Your task to perform on an android device: Search for the new Air Jordan 13 on Nike.com Image 0: 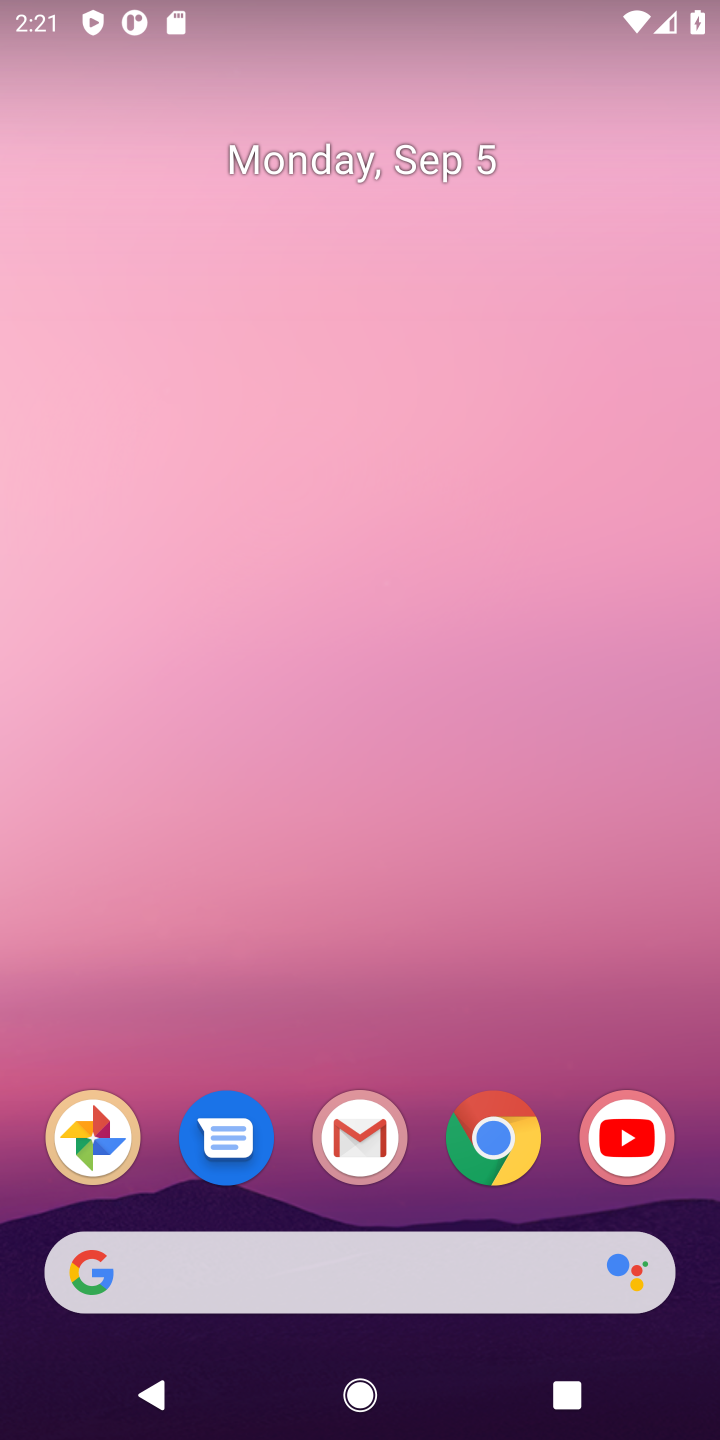
Step 0: click (502, 1148)
Your task to perform on an android device: Search for the new Air Jordan 13 on Nike.com Image 1: 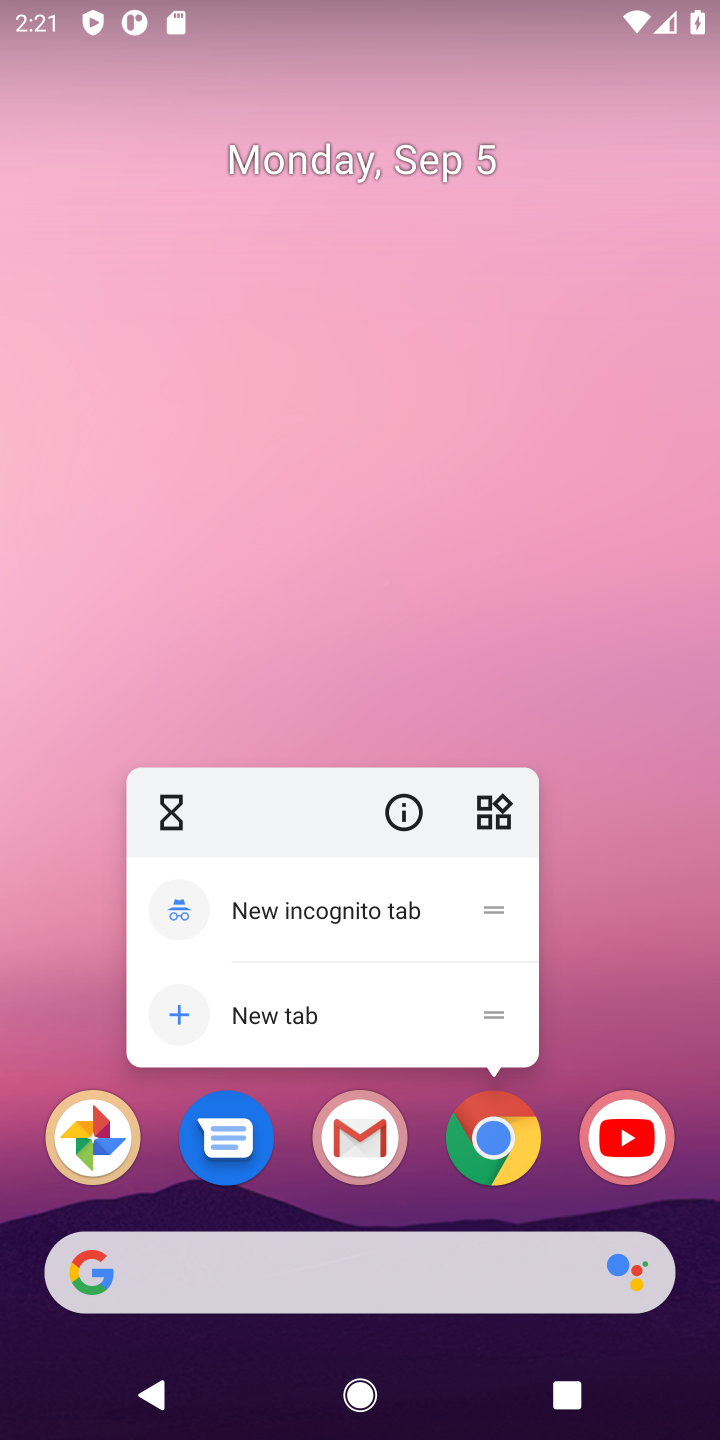
Step 1: click (486, 1118)
Your task to perform on an android device: Search for the new Air Jordan 13 on Nike.com Image 2: 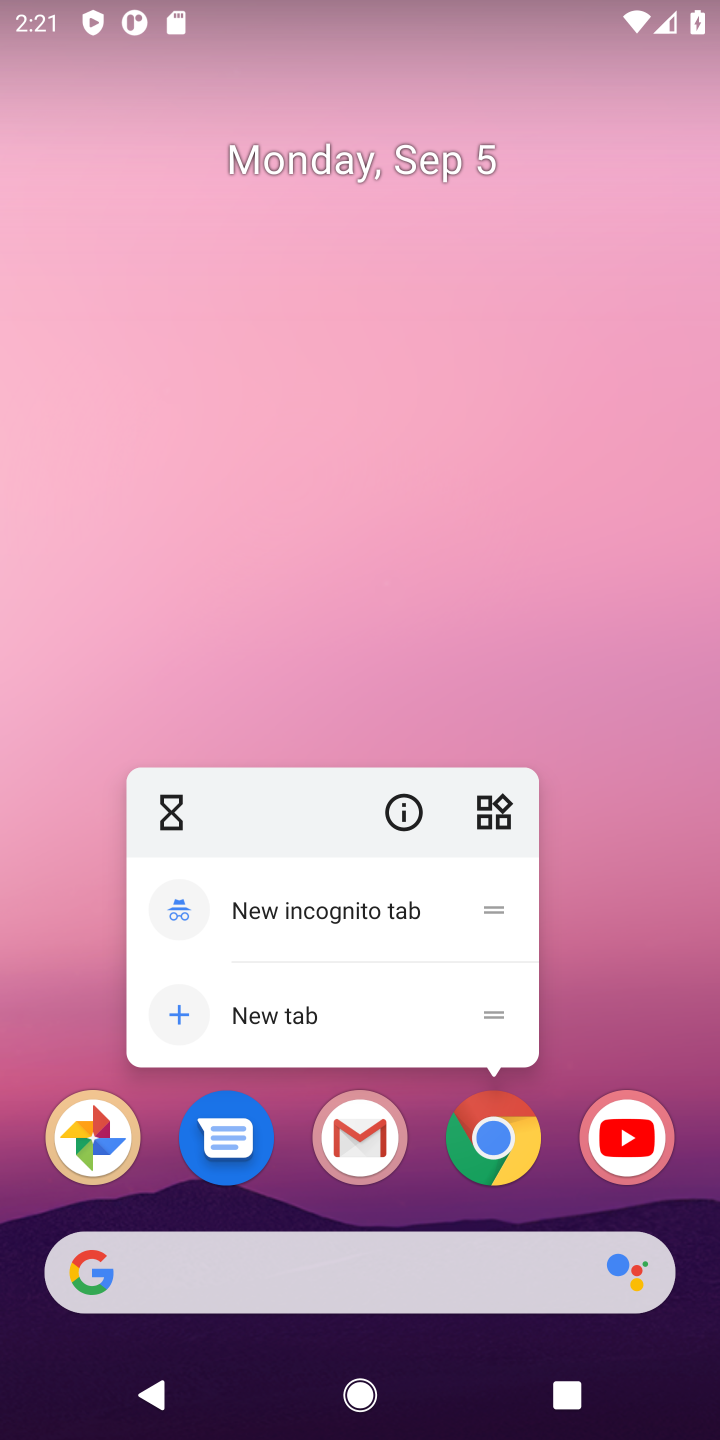
Step 2: click (497, 1157)
Your task to perform on an android device: Search for the new Air Jordan 13 on Nike.com Image 3: 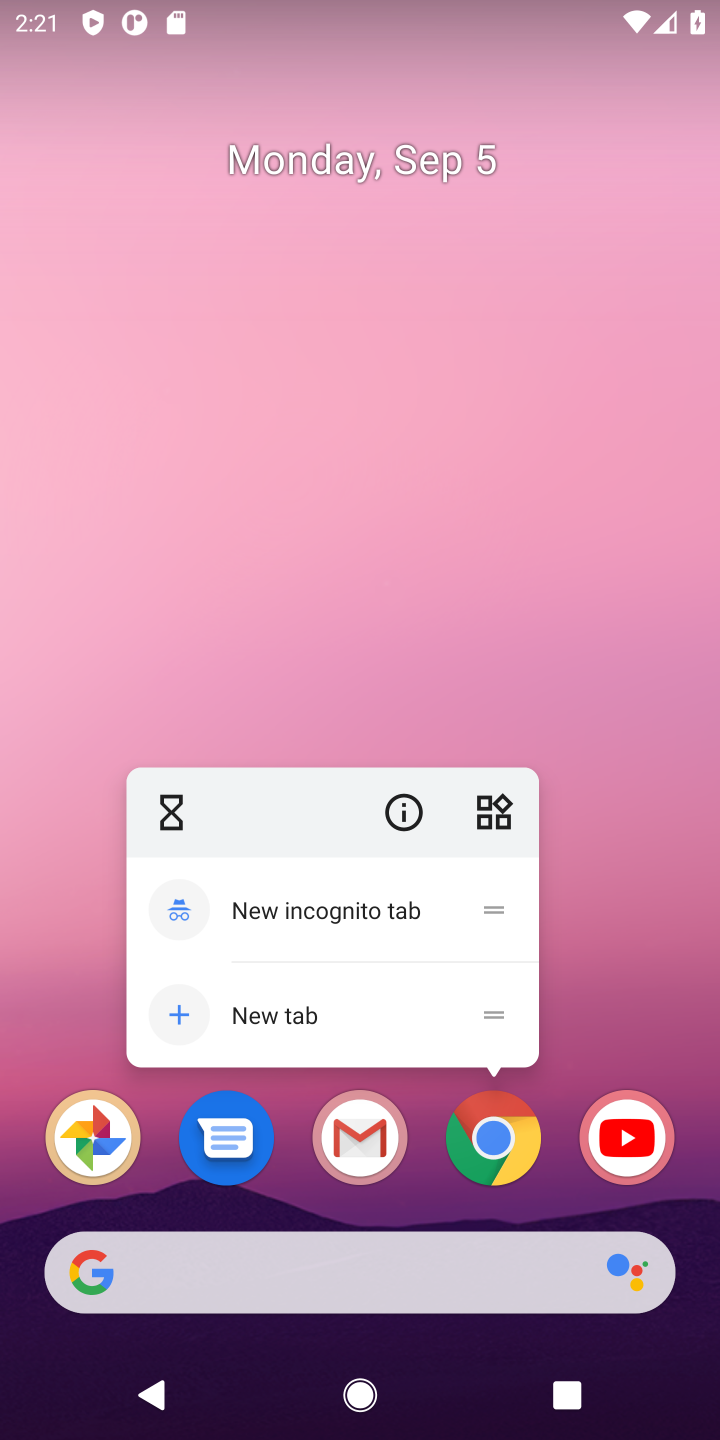
Step 3: click (499, 1148)
Your task to perform on an android device: Search for the new Air Jordan 13 on Nike.com Image 4: 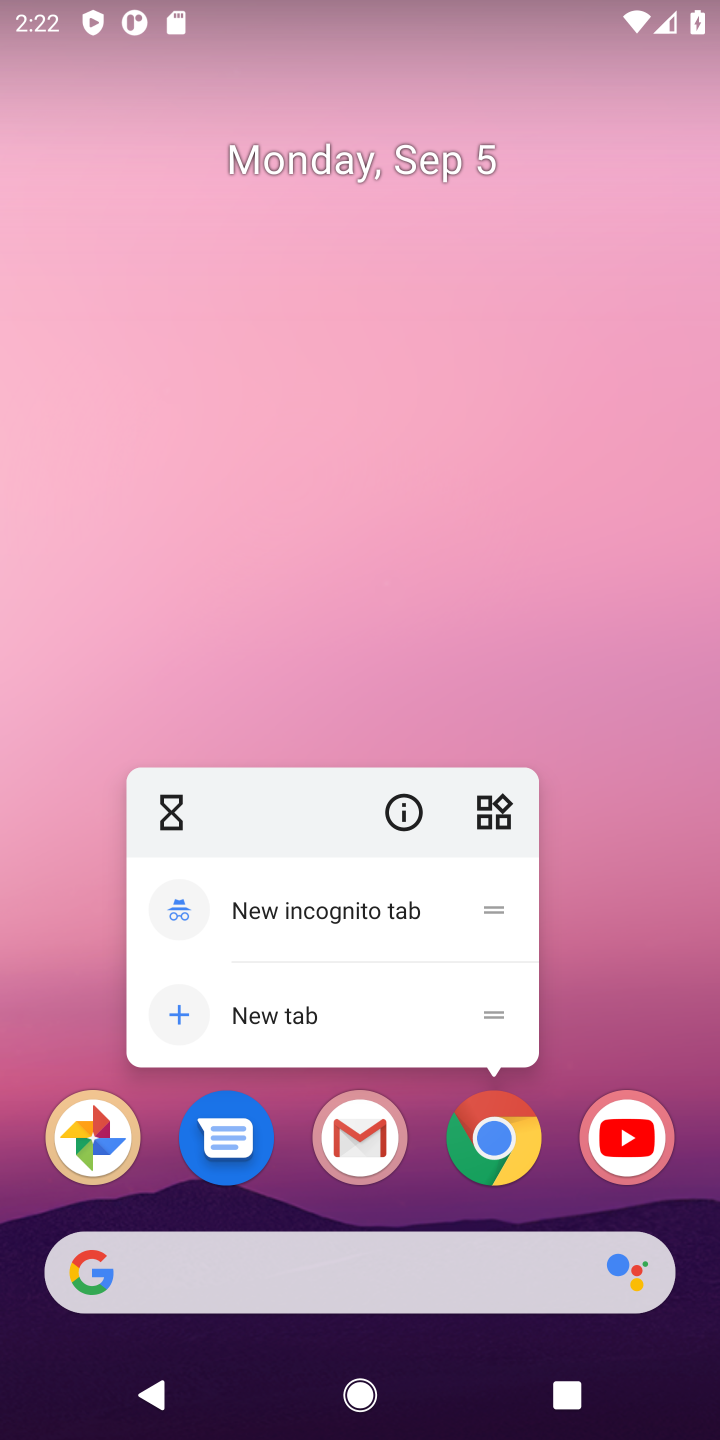
Step 4: click (505, 1148)
Your task to perform on an android device: Search for the new Air Jordan 13 on Nike.com Image 5: 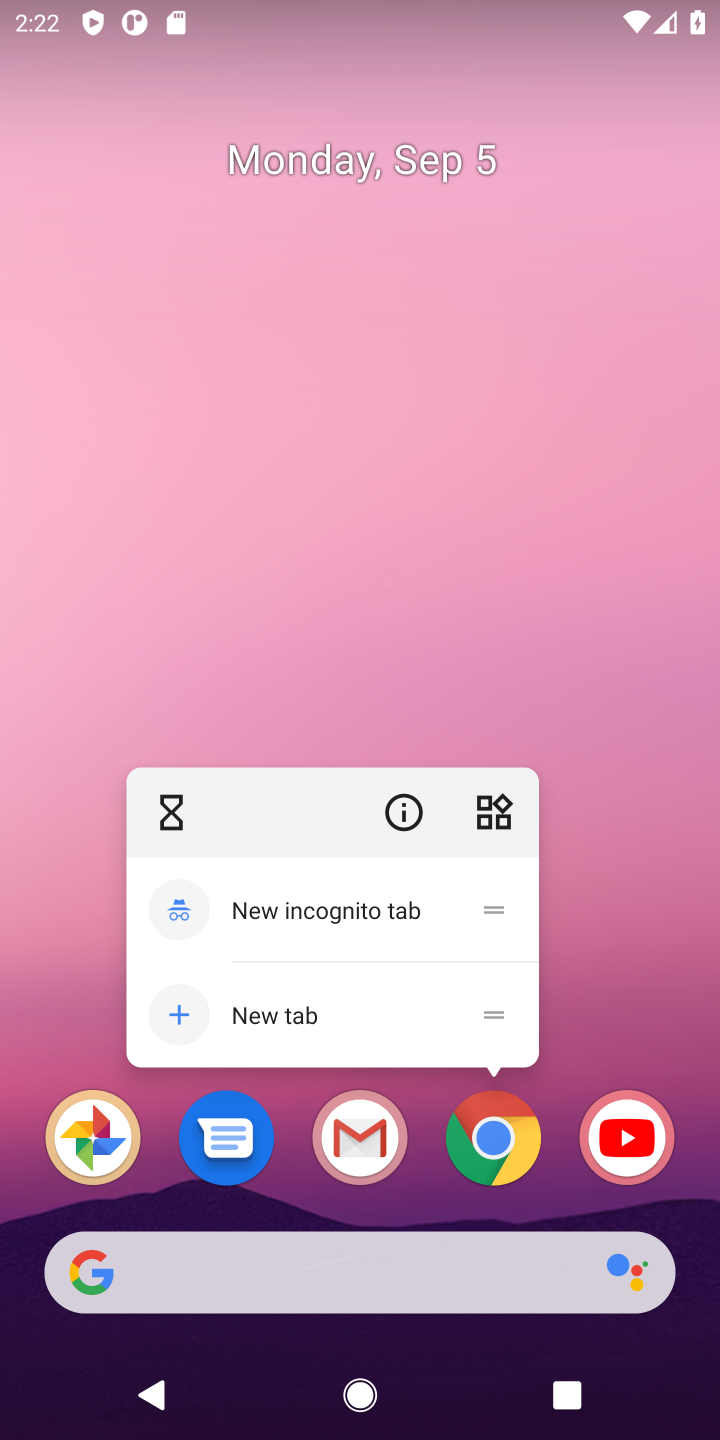
Step 5: click (506, 1146)
Your task to perform on an android device: Search for the new Air Jordan 13 on Nike.com Image 6: 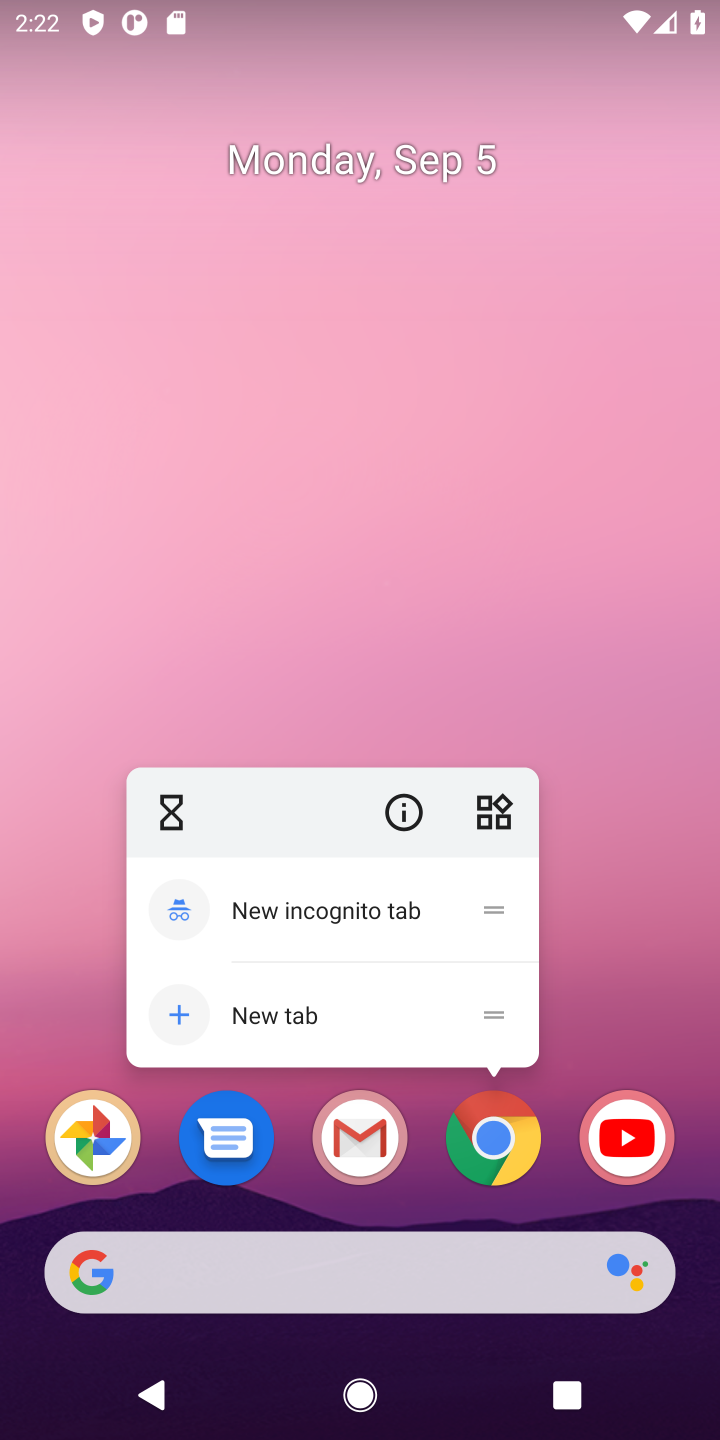
Step 6: click (492, 1147)
Your task to perform on an android device: Search for the new Air Jordan 13 on Nike.com Image 7: 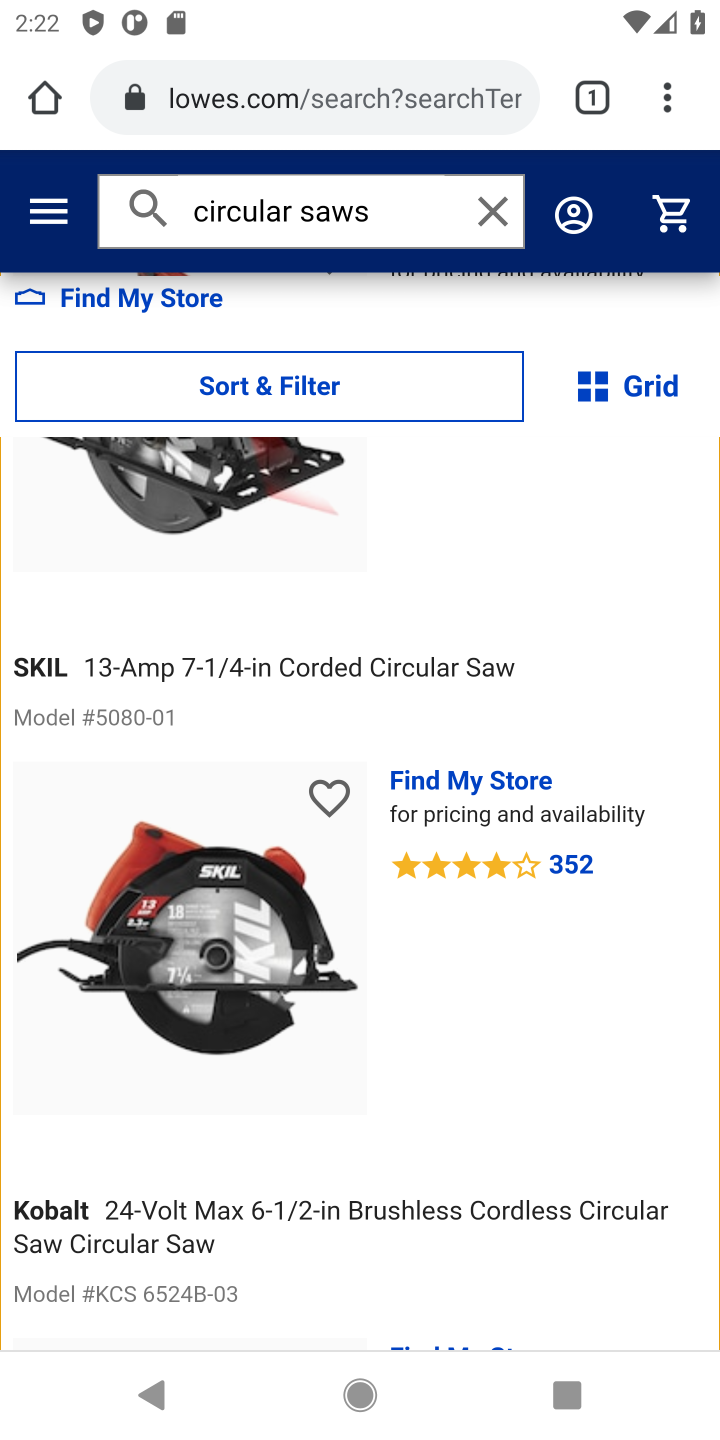
Step 7: click (339, 83)
Your task to perform on an android device: Search for the new Air Jordan 13 on Nike.com Image 8: 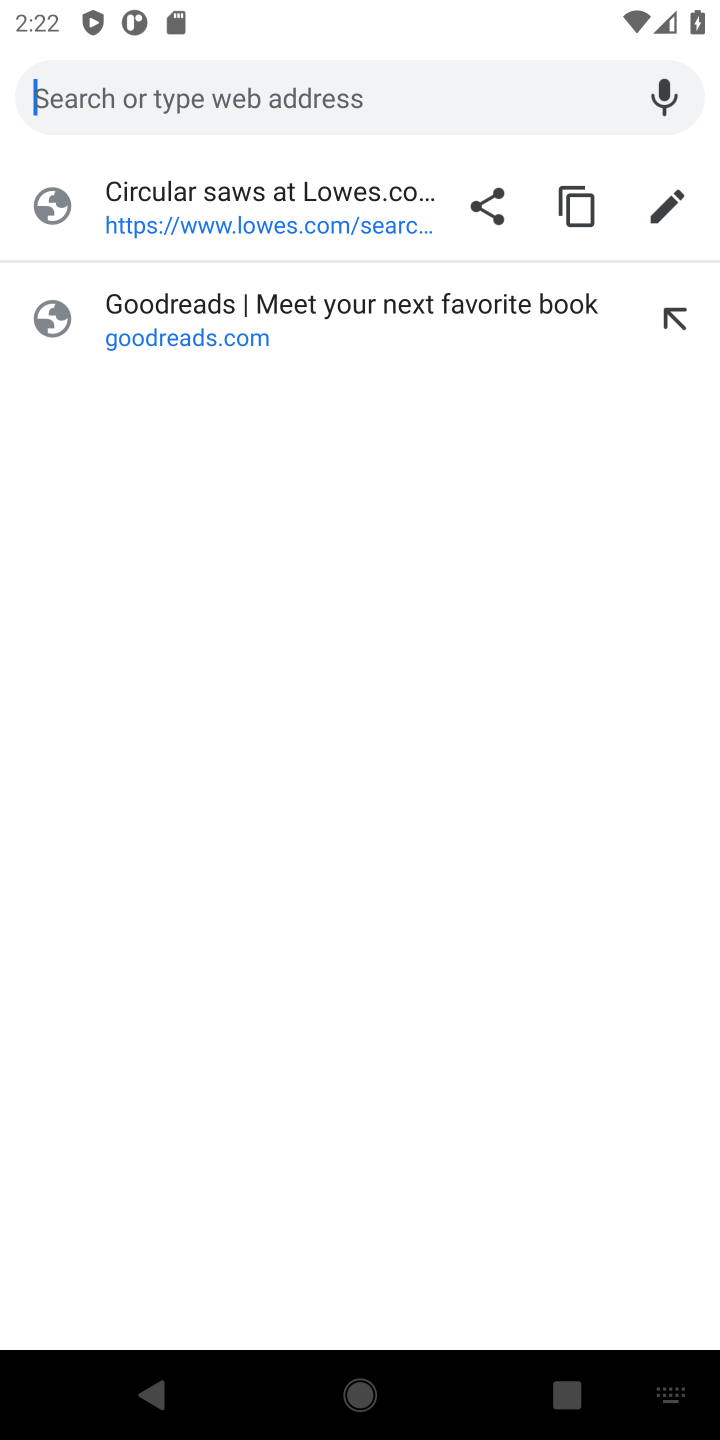
Step 8: type "nike.com"
Your task to perform on an android device: Search for the new Air Jordan 13 on Nike.com Image 9: 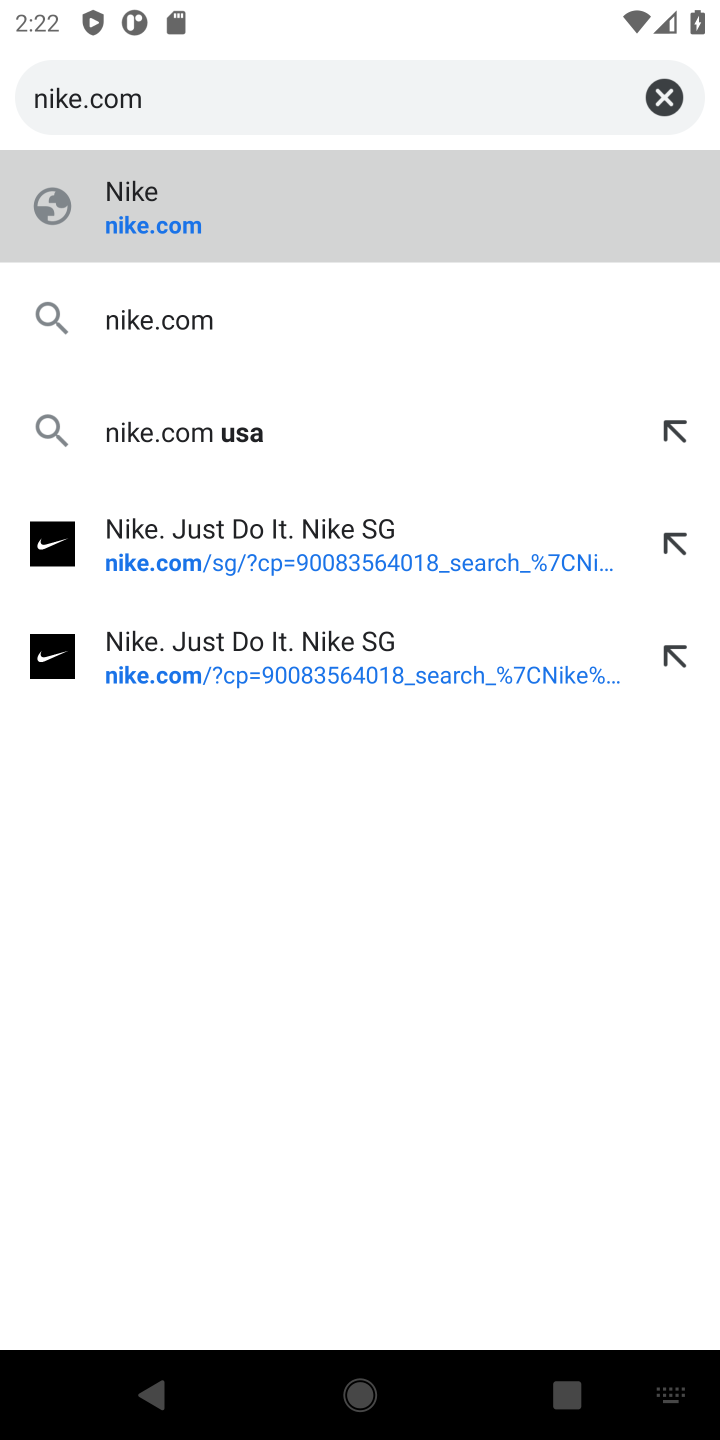
Step 9: type ""
Your task to perform on an android device: Search for the new Air Jordan 13 on Nike.com Image 10: 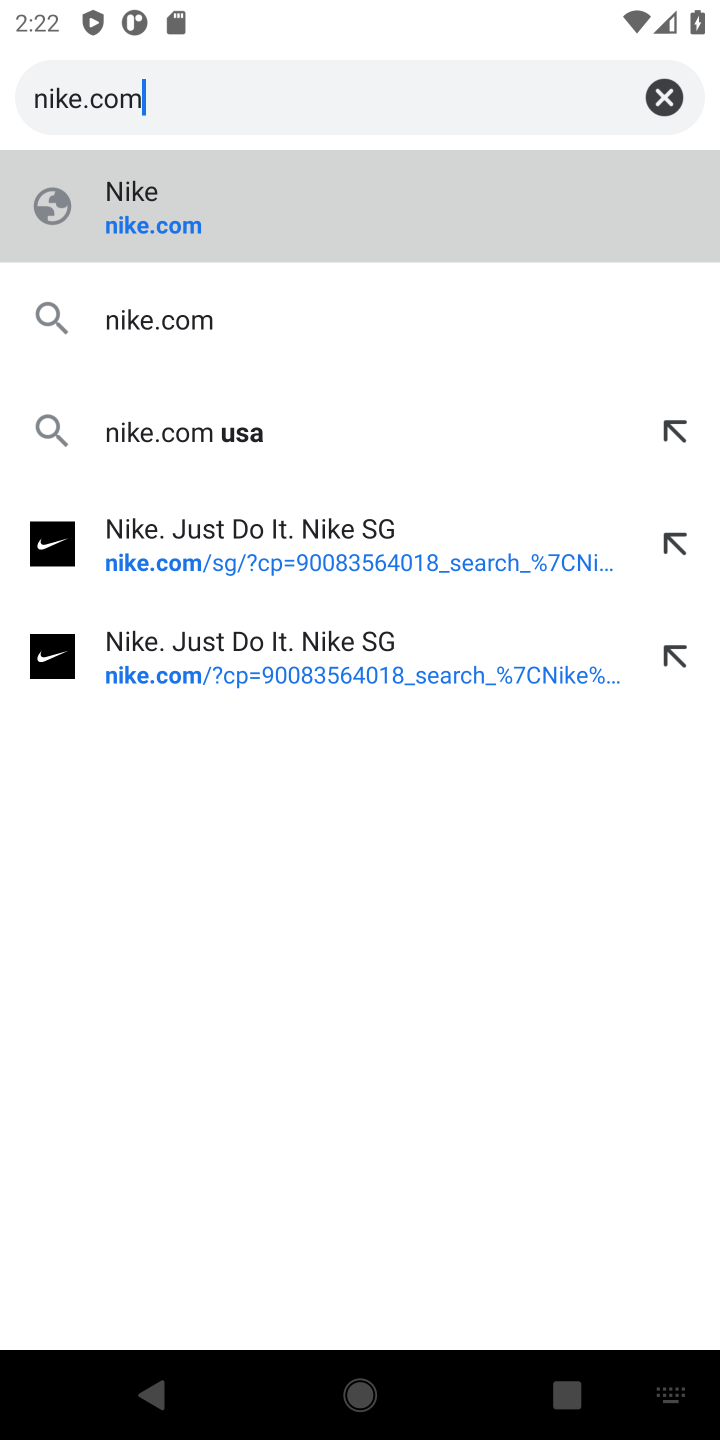
Step 10: click (332, 529)
Your task to perform on an android device: Search for the new Air Jordan 13 on Nike.com Image 11: 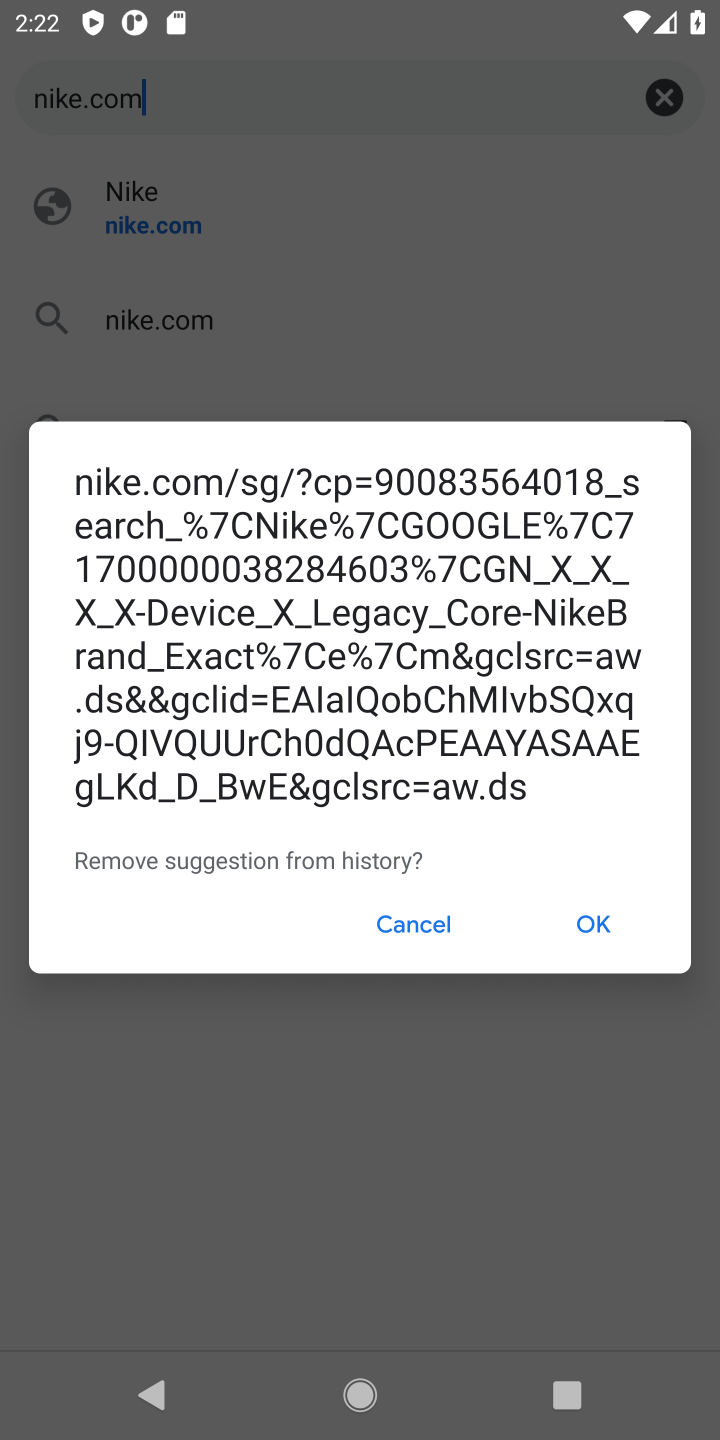
Step 11: click (412, 925)
Your task to perform on an android device: Search for the new Air Jordan 13 on Nike.com Image 12: 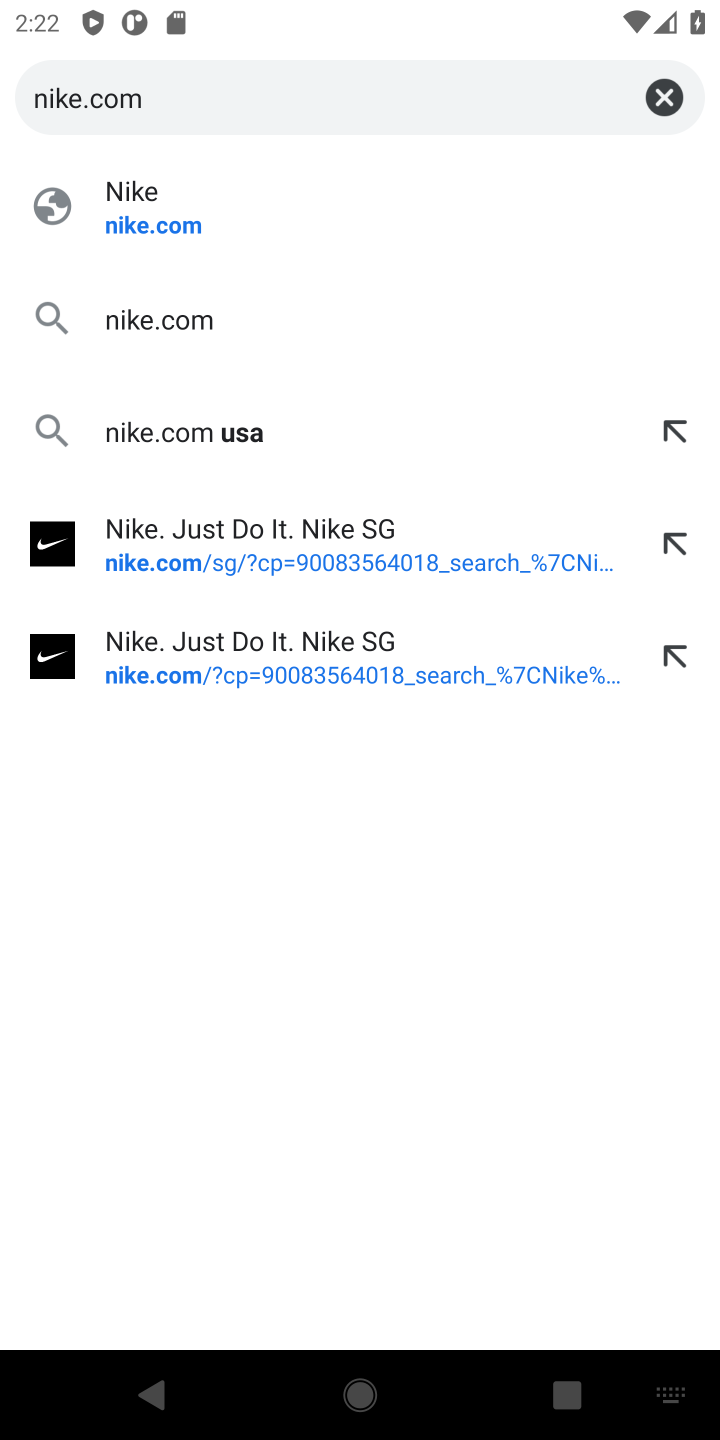
Step 12: click (341, 548)
Your task to perform on an android device: Search for the new Air Jordan 13 on Nike.com Image 13: 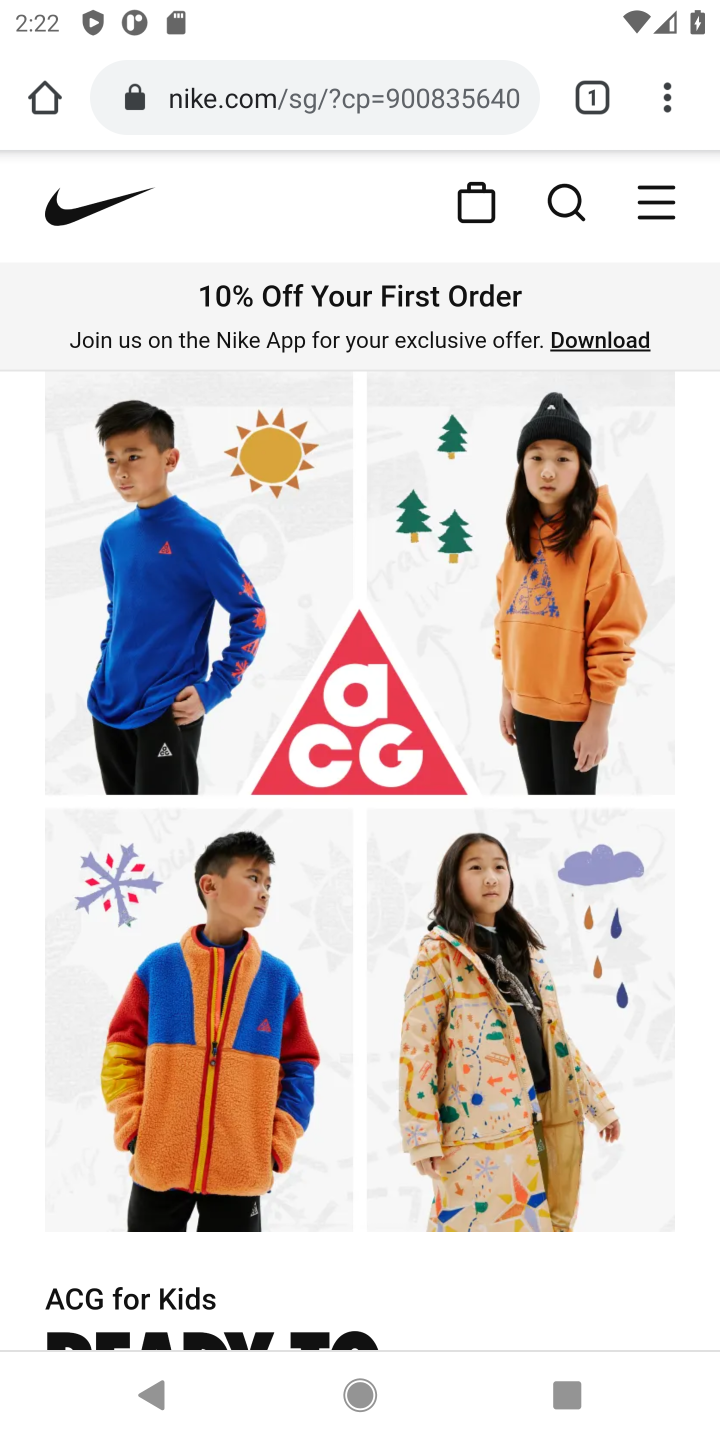
Step 13: click (554, 201)
Your task to perform on an android device: Search for the new Air Jordan 13 on Nike.com Image 14: 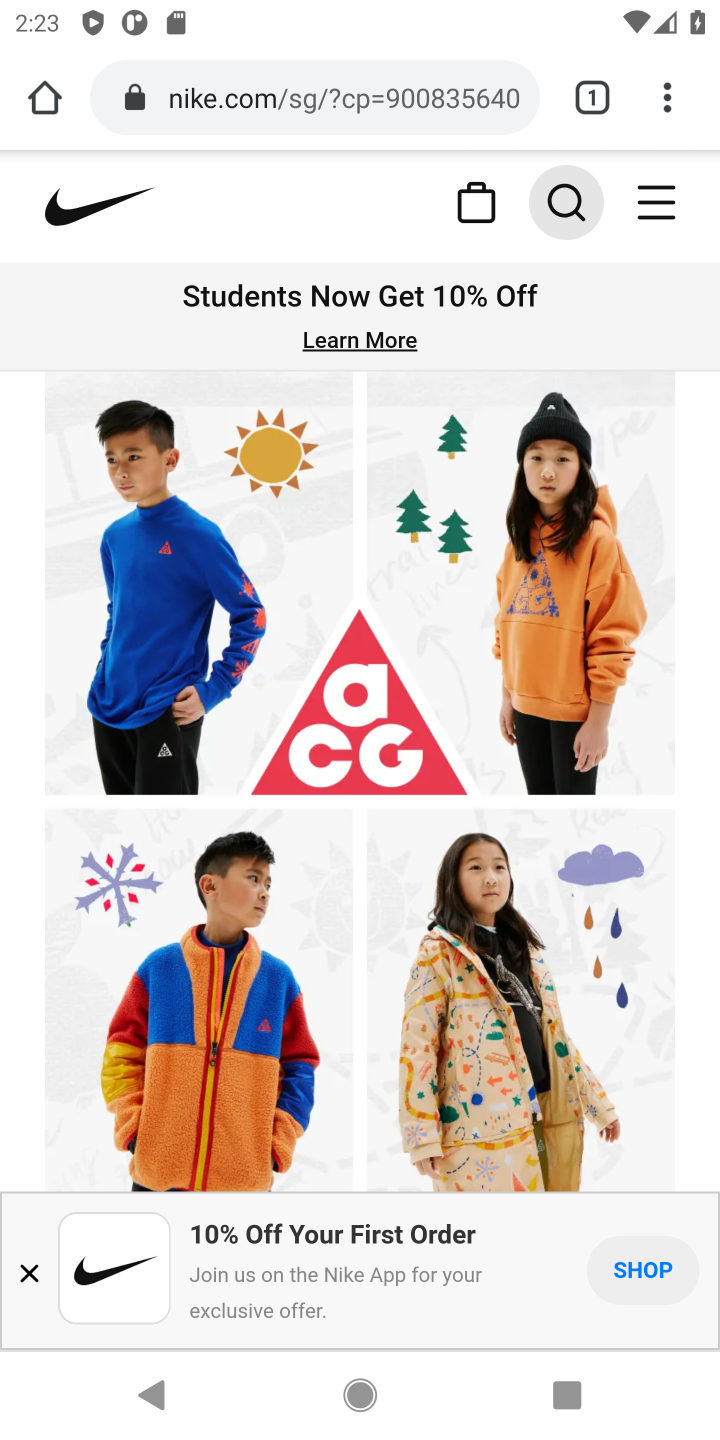
Step 14: click (557, 214)
Your task to perform on an android device: Search for the new Air Jordan 13 on Nike.com Image 15: 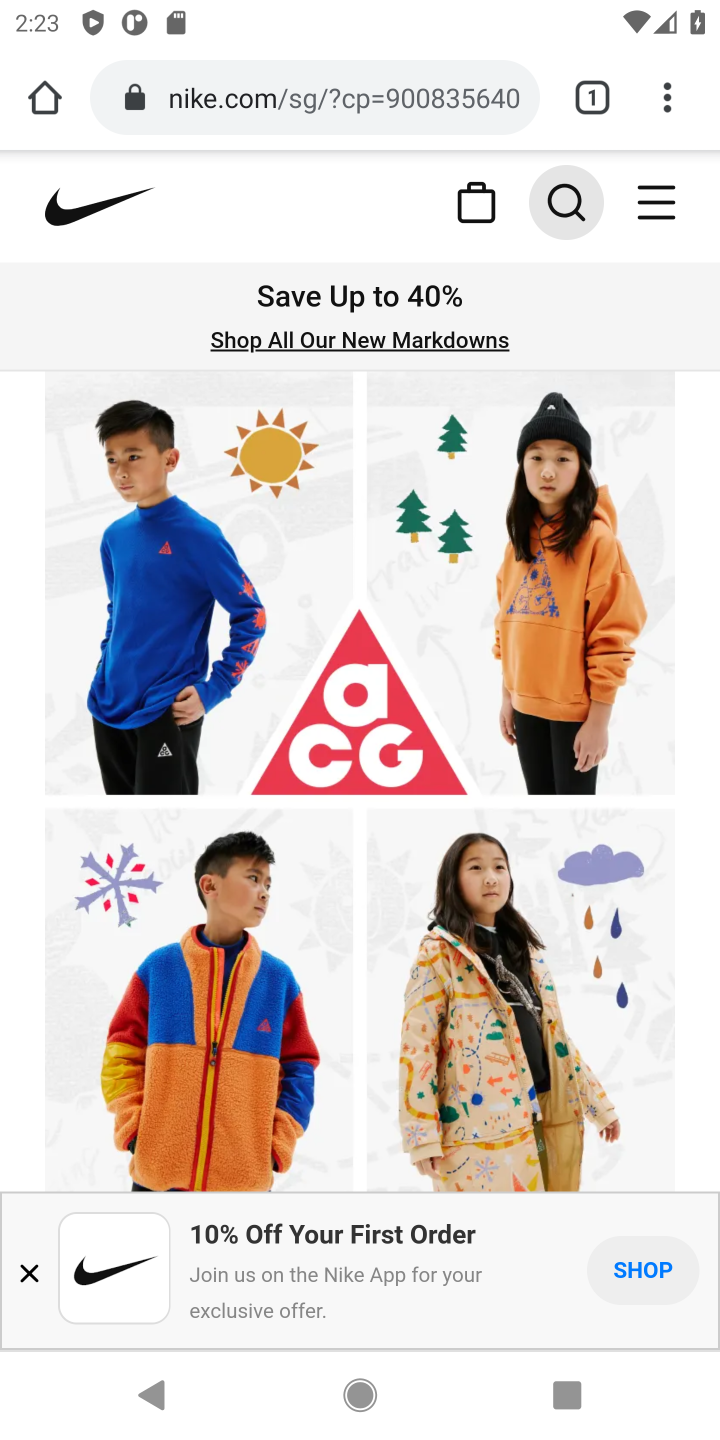
Step 15: click (29, 1273)
Your task to perform on an android device: Search for the new Air Jordan 13 on Nike.com Image 16: 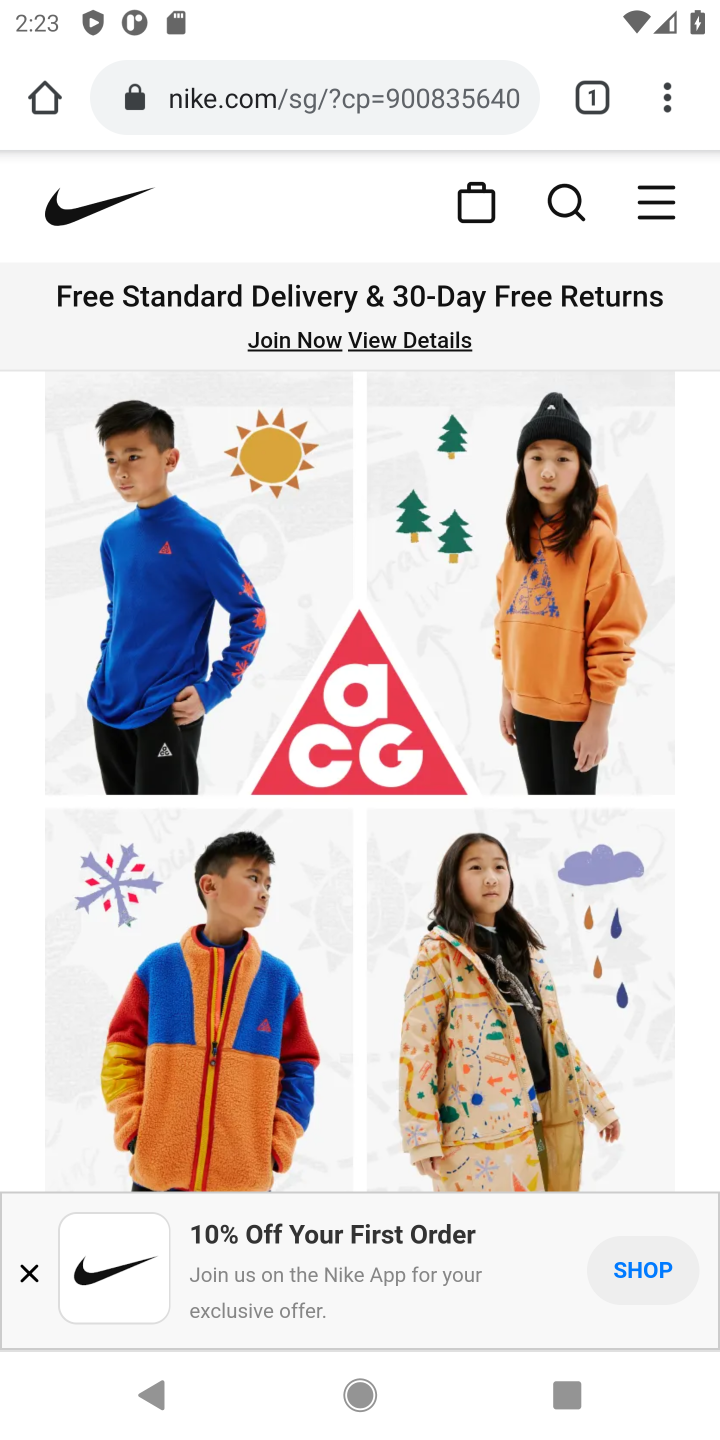
Step 16: click (569, 199)
Your task to perform on an android device: Search for the new Air Jordan 13 on Nike.com Image 17: 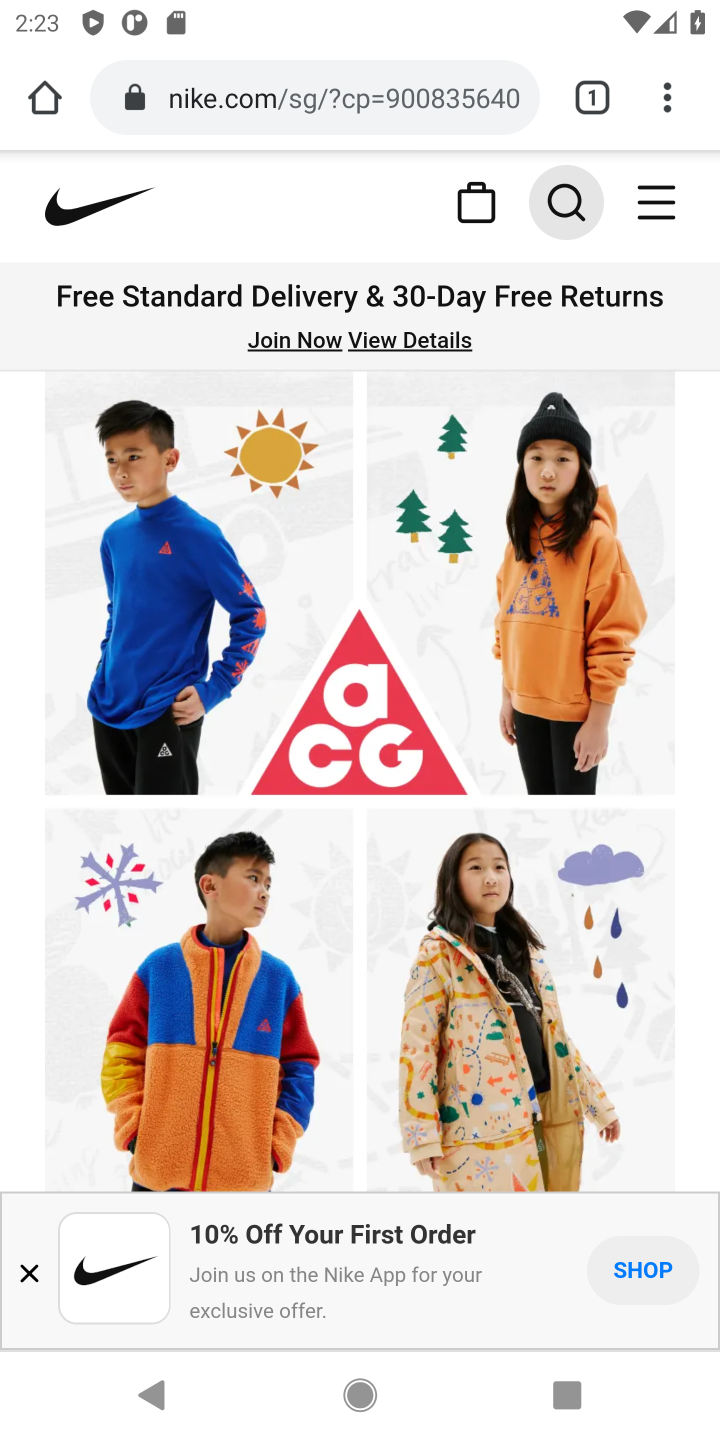
Step 17: click (567, 199)
Your task to perform on an android device: Search for the new Air Jordan 13 on Nike.com Image 18: 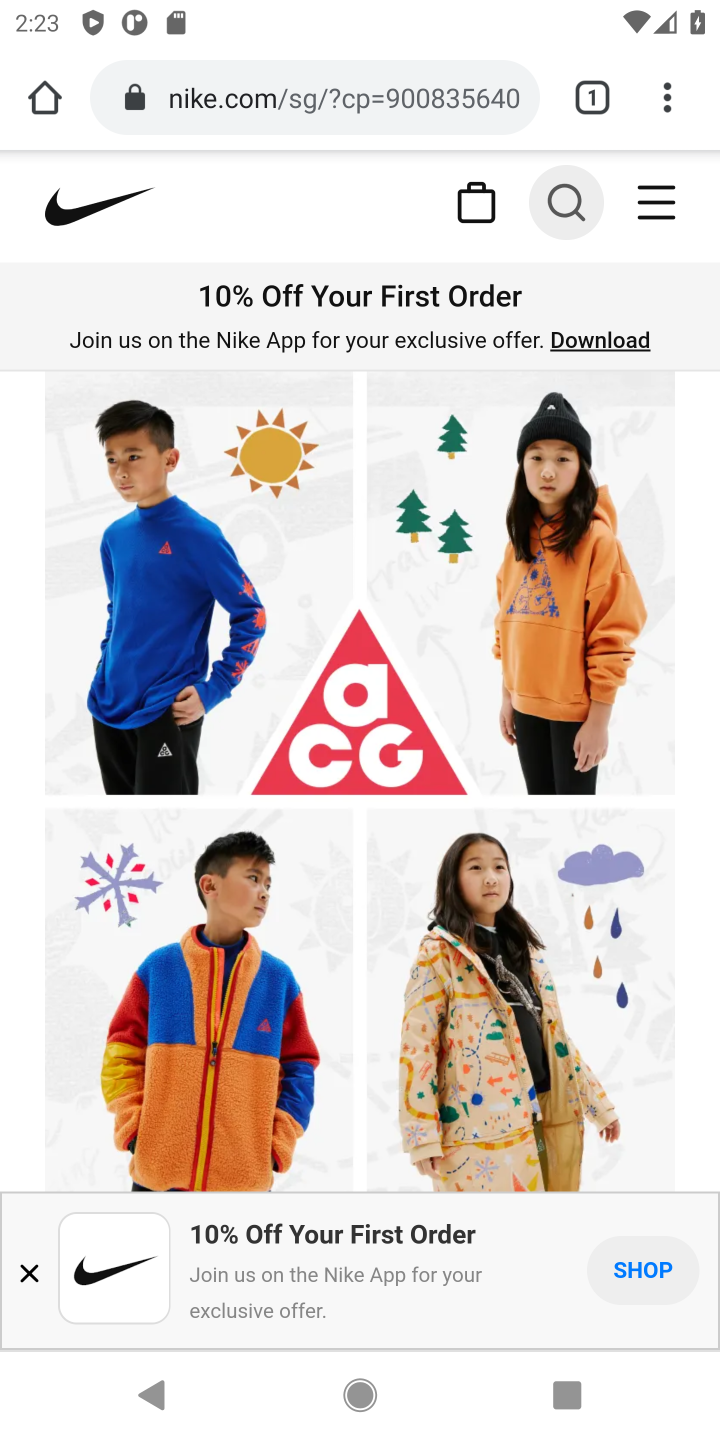
Step 18: click (571, 197)
Your task to perform on an android device: Search for the new Air Jordan 13 on Nike.com Image 19: 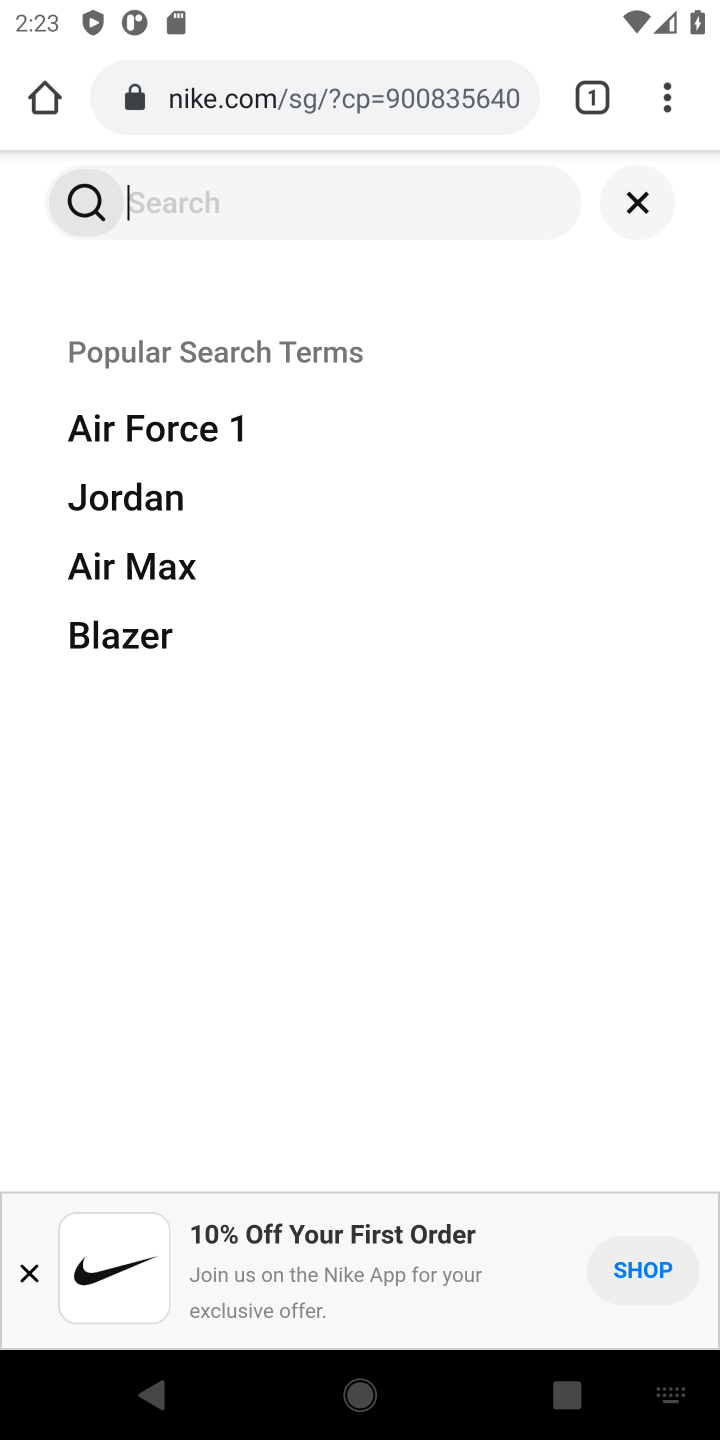
Step 19: type "air jordan 13"
Your task to perform on an android device: Search for the new Air Jordan 13 on Nike.com Image 20: 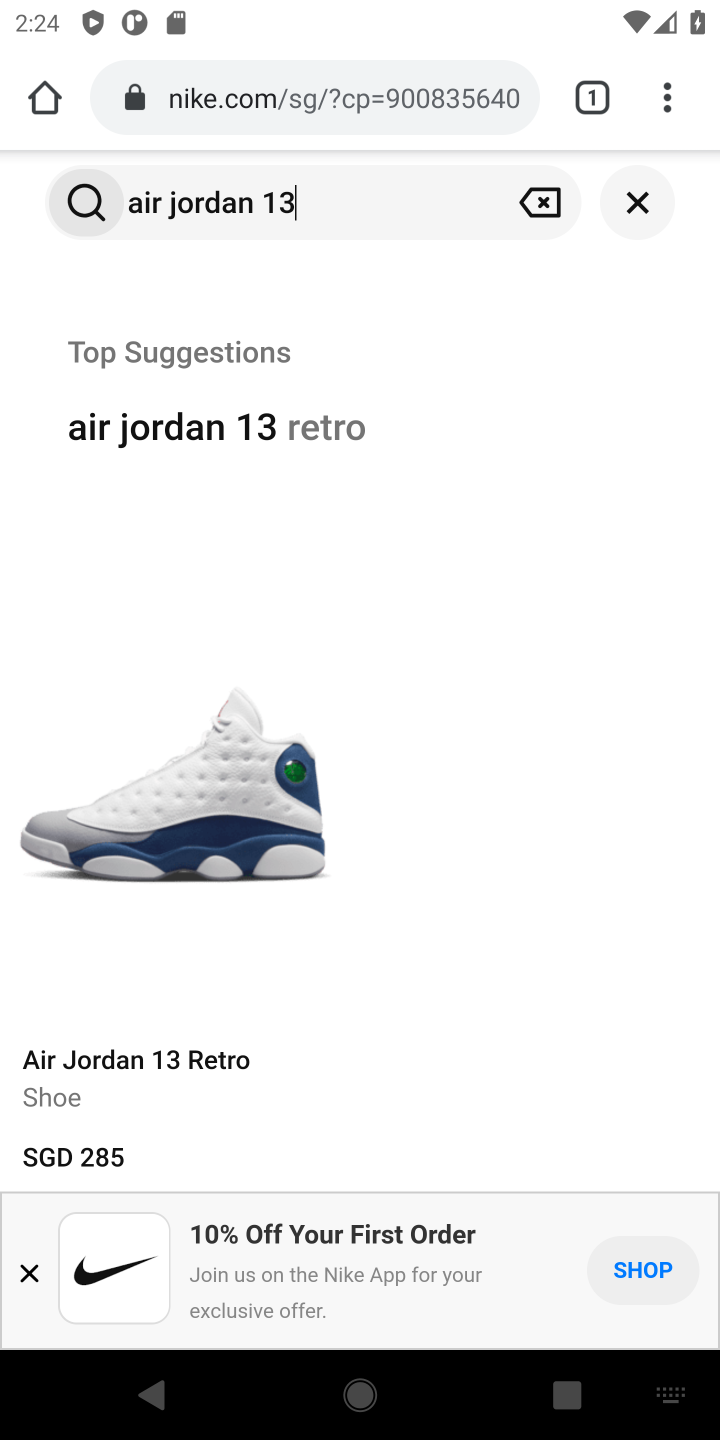
Step 20: task complete